Your task to perform on an android device: Find coffee shops on Maps Image 0: 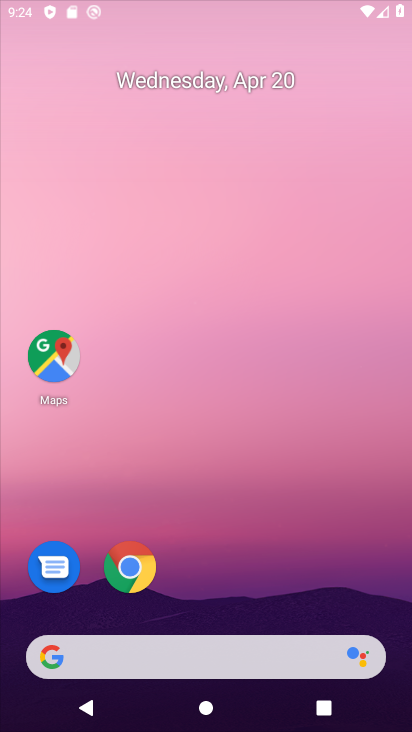
Step 0: drag from (303, 404) to (286, 254)
Your task to perform on an android device: Find coffee shops on Maps Image 1: 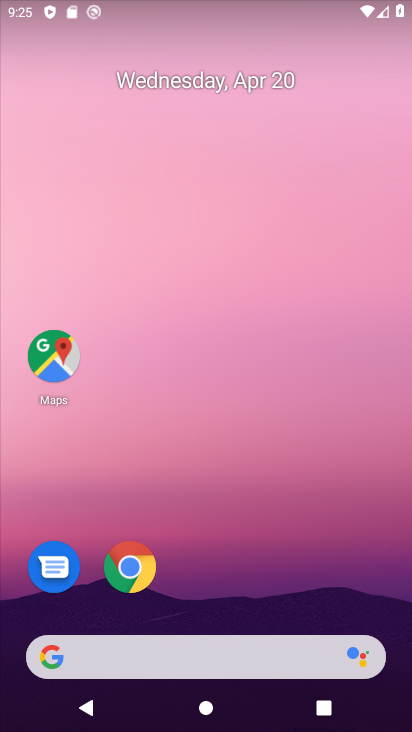
Step 1: drag from (182, 510) to (237, 227)
Your task to perform on an android device: Find coffee shops on Maps Image 2: 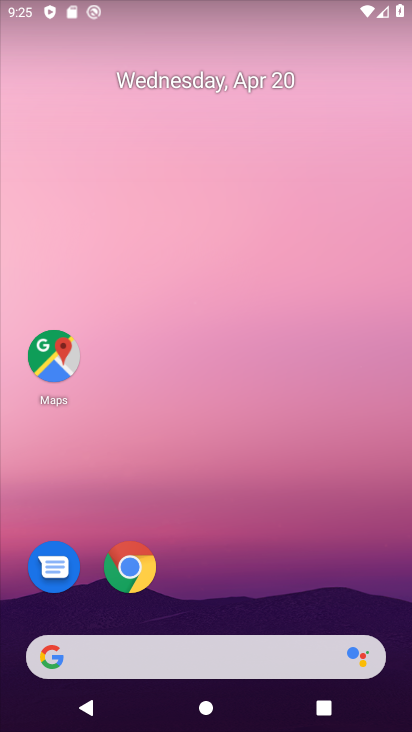
Step 2: drag from (239, 489) to (257, 219)
Your task to perform on an android device: Find coffee shops on Maps Image 3: 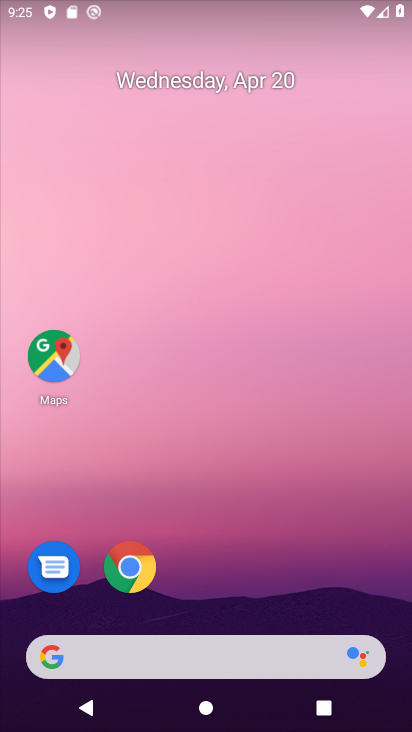
Step 3: drag from (304, 452) to (298, 260)
Your task to perform on an android device: Find coffee shops on Maps Image 4: 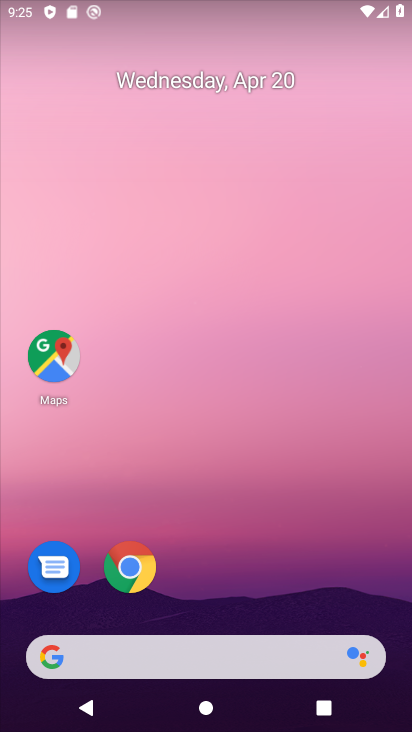
Step 4: drag from (241, 628) to (323, 127)
Your task to perform on an android device: Find coffee shops on Maps Image 5: 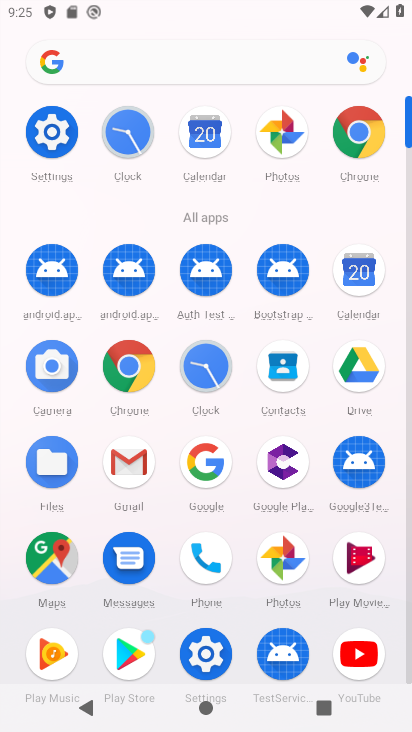
Step 5: click (282, 135)
Your task to perform on an android device: Find coffee shops on Maps Image 6: 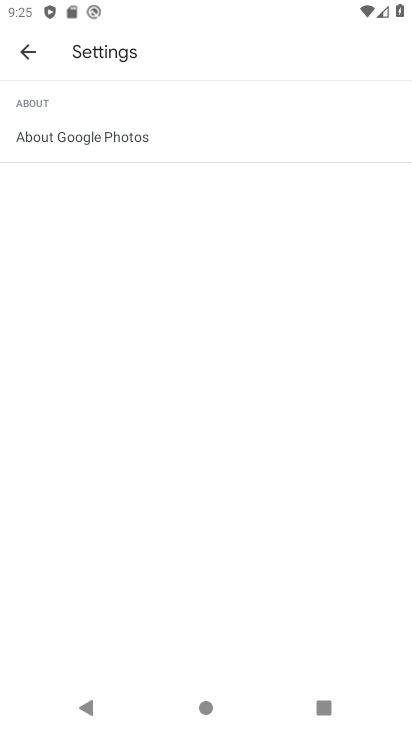
Step 6: press home button
Your task to perform on an android device: Find coffee shops on Maps Image 7: 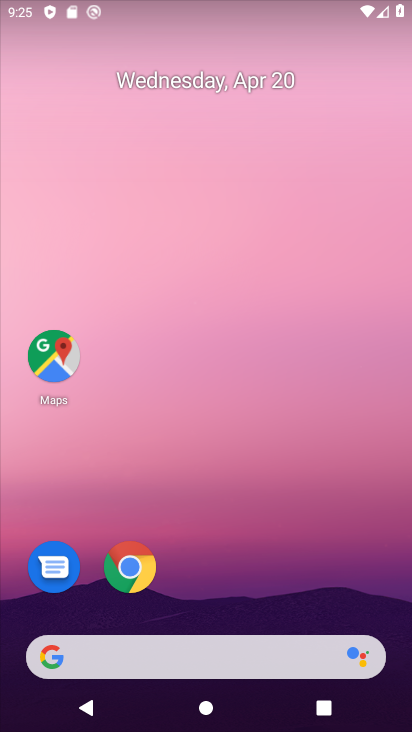
Step 7: drag from (233, 421) to (233, 128)
Your task to perform on an android device: Find coffee shops on Maps Image 8: 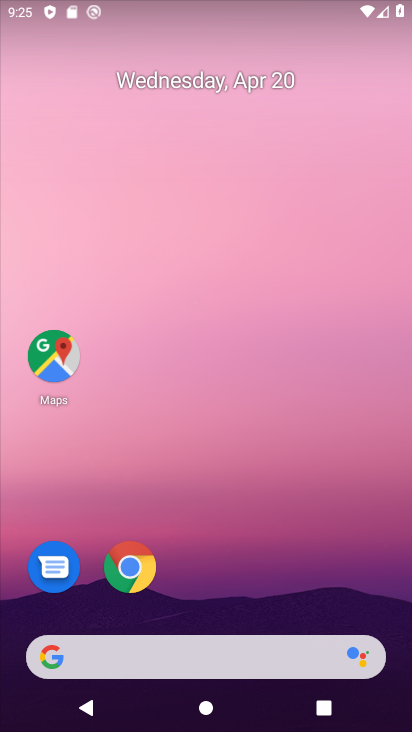
Step 8: drag from (292, 602) to (281, 215)
Your task to perform on an android device: Find coffee shops on Maps Image 9: 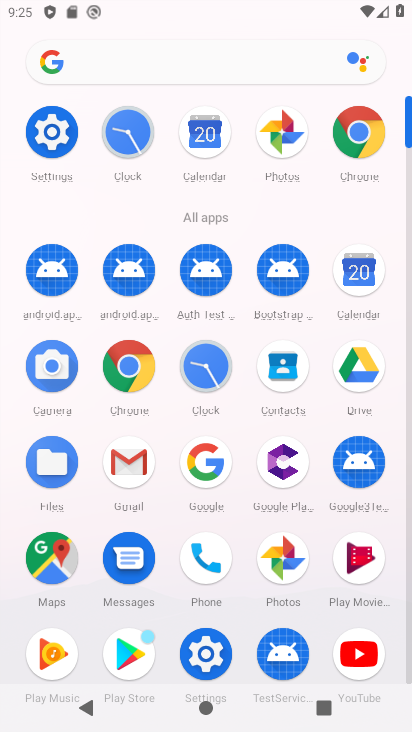
Step 9: click (65, 557)
Your task to perform on an android device: Find coffee shops on Maps Image 10: 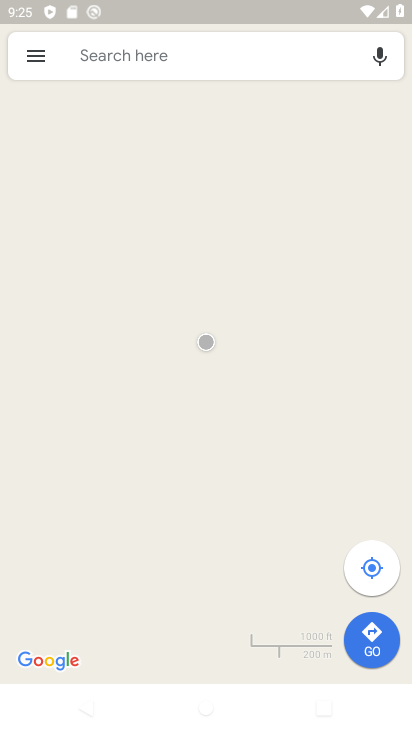
Step 10: click (172, 63)
Your task to perform on an android device: Find coffee shops on Maps Image 11: 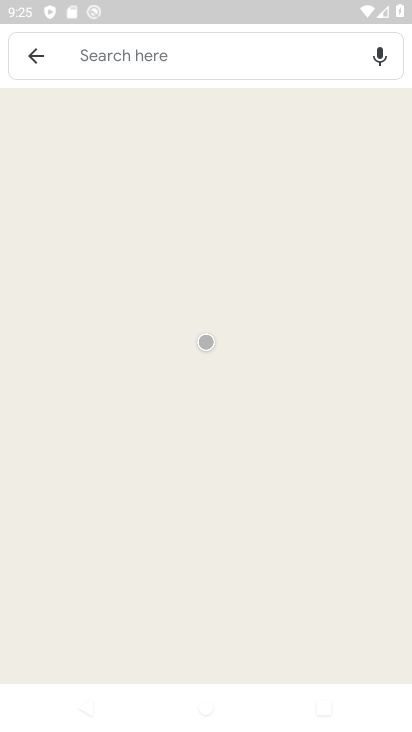
Step 11: type "coffee shops "
Your task to perform on an android device: Find coffee shops on Maps Image 12: 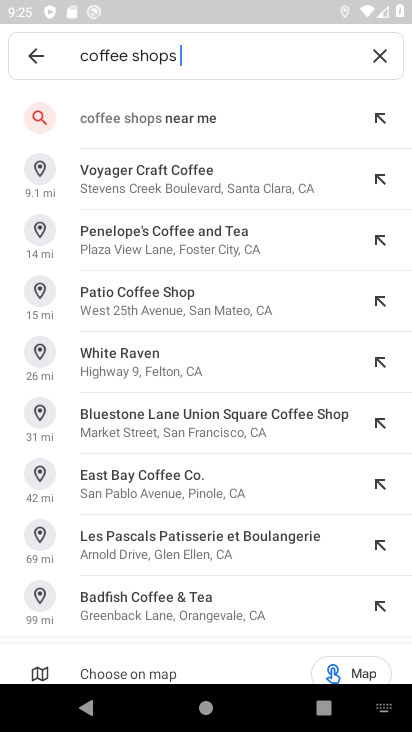
Step 12: click (126, 116)
Your task to perform on an android device: Find coffee shops on Maps Image 13: 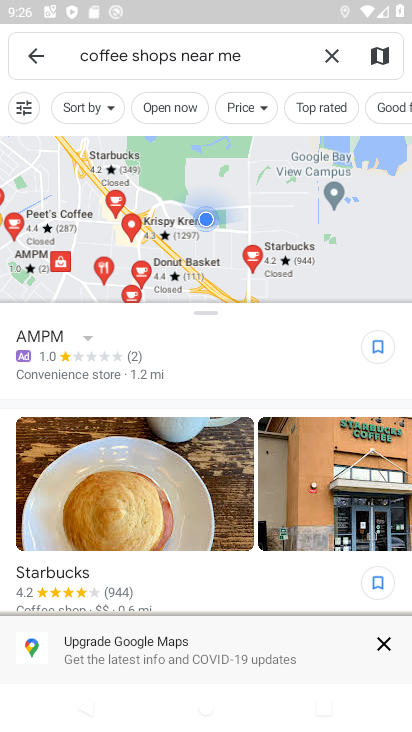
Step 13: task complete